Your task to perform on an android device: Check the news Image 0: 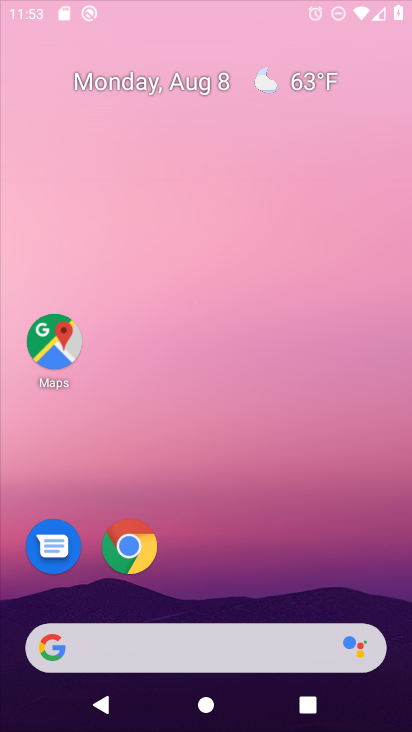
Step 0: press home button
Your task to perform on an android device: Check the news Image 1: 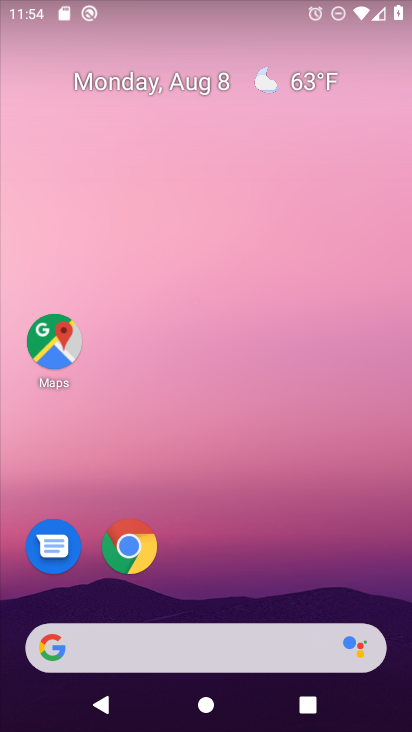
Step 1: drag from (12, 283) to (378, 276)
Your task to perform on an android device: Check the news Image 2: 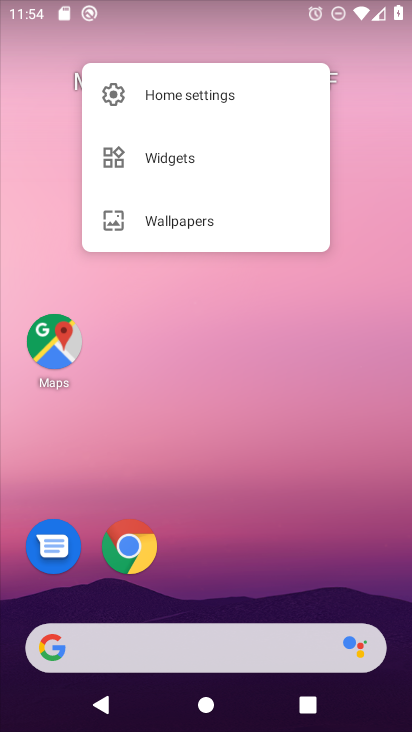
Step 2: click (160, 432)
Your task to perform on an android device: Check the news Image 3: 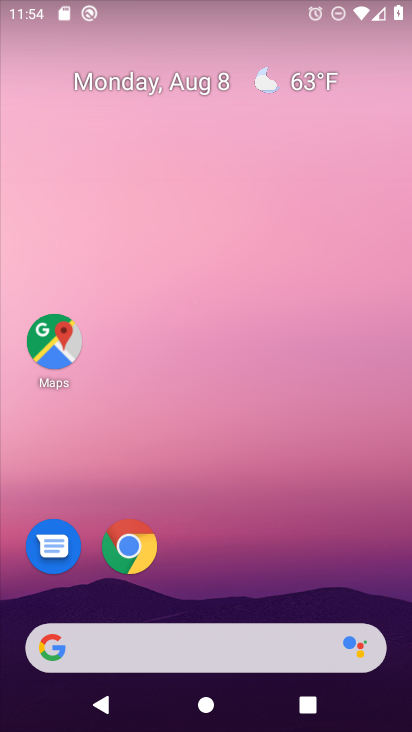
Step 3: task complete